Your task to perform on an android device: What's on my calendar tomorrow? Image 0: 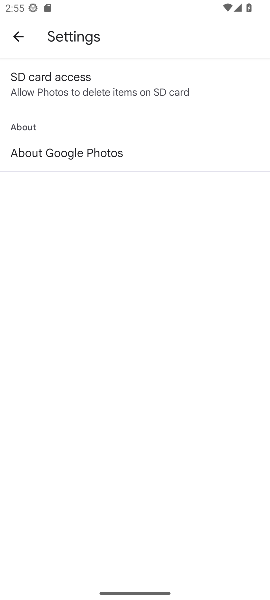
Step 0: press home button
Your task to perform on an android device: What's on my calendar tomorrow? Image 1: 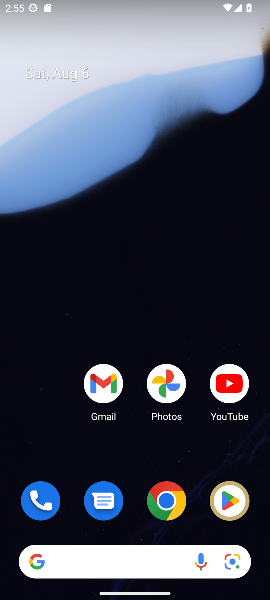
Step 1: drag from (197, 458) to (207, 69)
Your task to perform on an android device: What's on my calendar tomorrow? Image 2: 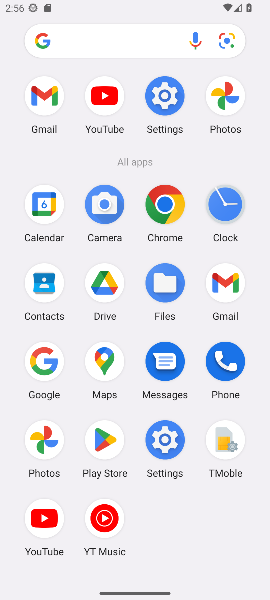
Step 2: click (40, 196)
Your task to perform on an android device: What's on my calendar tomorrow? Image 3: 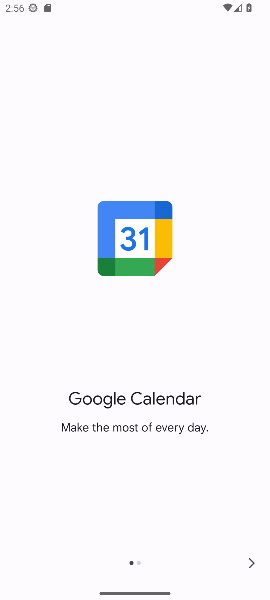
Step 3: click (251, 561)
Your task to perform on an android device: What's on my calendar tomorrow? Image 4: 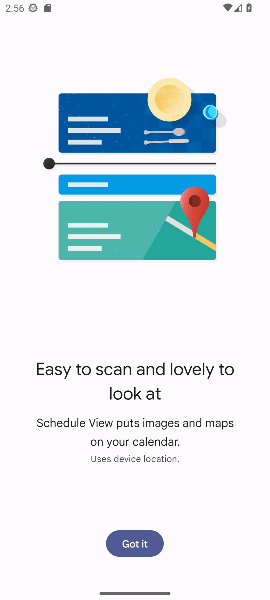
Step 4: click (251, 561)
Your task to perform on an android device: What's on my calendar tomorrow? Image 5: 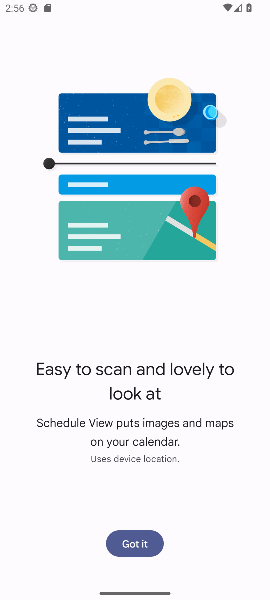
Step 5: click (145, 541)
Your task to perform on an android device: What's on my calendar tomorrow? Image 6: 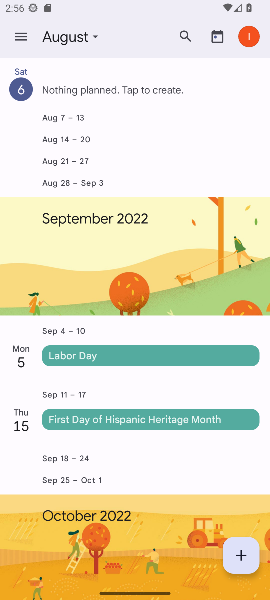
Step 6: click (18, 34)
Your task to perform on an android device: What's on my calendar tomorrow? Image 7: 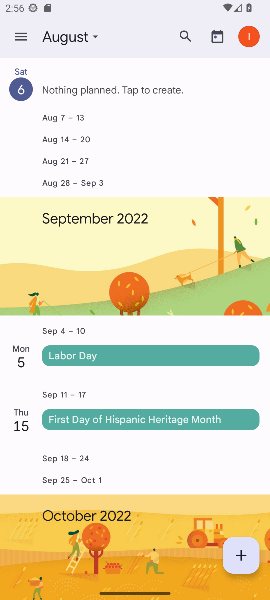
Step 7: click (45, 36)
Your task to perform on an android device: What's on my calendar tomorrow? Image 8: 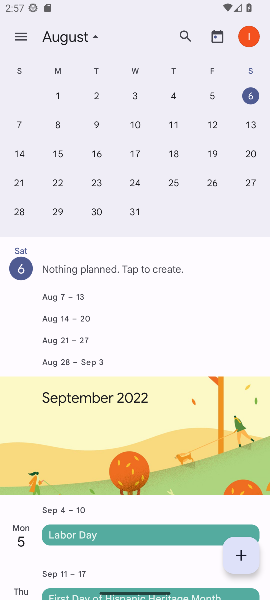
Step 8: click (13, 127)
Your task to perform on an android device: What's on my calendar tomorrow? Image 9: 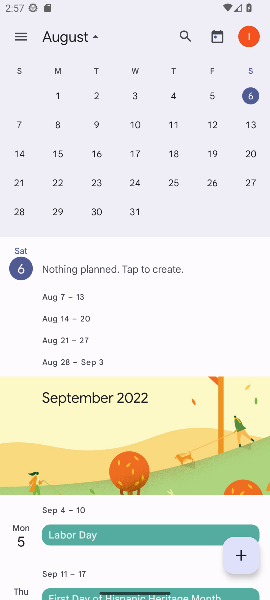
Step 9: click (18, 123)
Your task to perform on an android device: What's on my calendar tomorrow? Image 10: 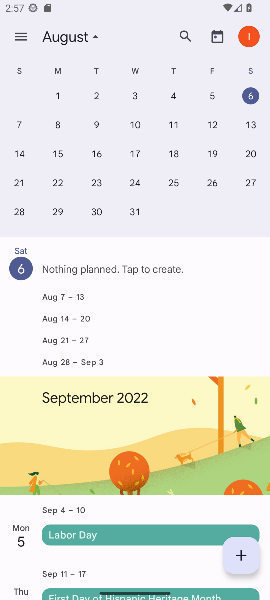
Step 10: click (17, 123)
Your task to perform on an android device: What's on my calendar tomorrow? Image 11: 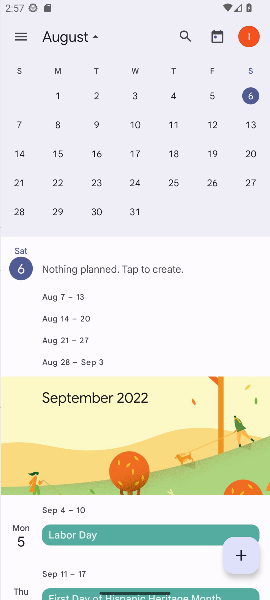
Step 11: click (24, 118)
Your task to perform on an android device: What's on my calendar tomorrow? Image 12: 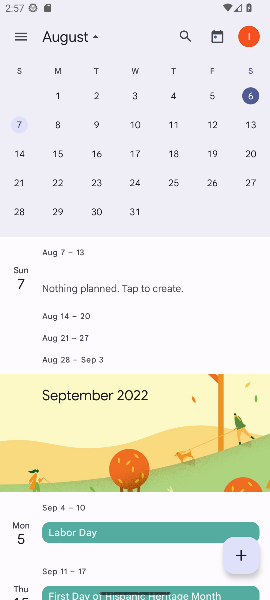
Step 12: click (19, 120)
Your task to perform on an android device: What's on my calendar tomorrow? Image 13: 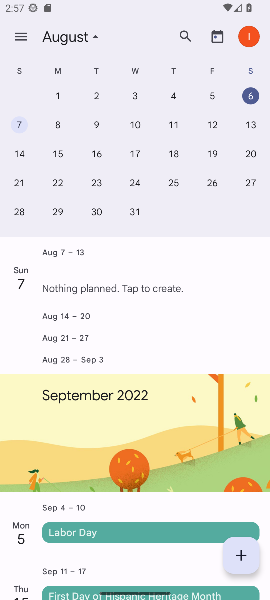
Step 13: click (19, 120)
Your task to perform on an android device: What's on my calendar tomorrow? Image 14: 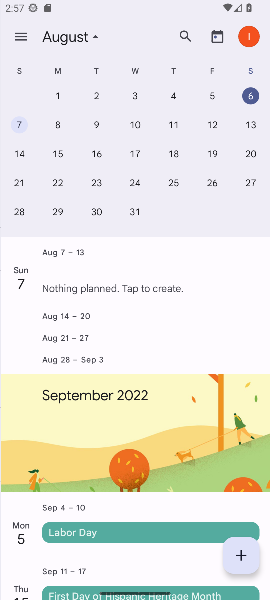
Step 14: click (19, 120)
Your task to perform on an android device: What's on my calendar tomorrow? Image 15: 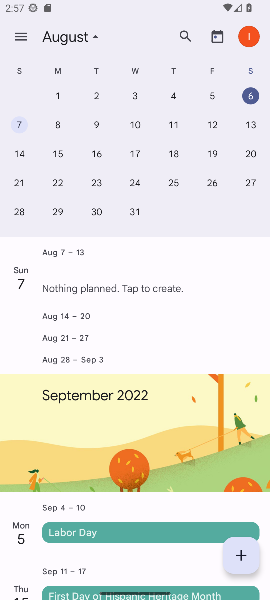
Step 15: click (19, 120)
Your task to perform on an android device: What's on my calendar tomorrow? Image 16: 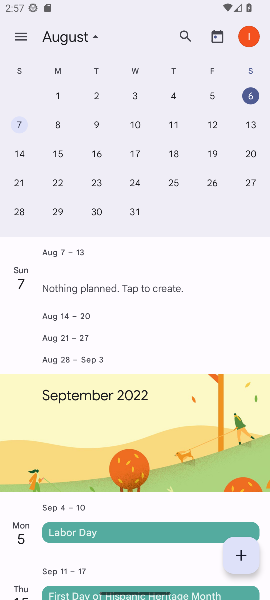
Step 16: click (19, 120)
Your task to perform on an android device: What's on my calendar tomorrow? Image 17: 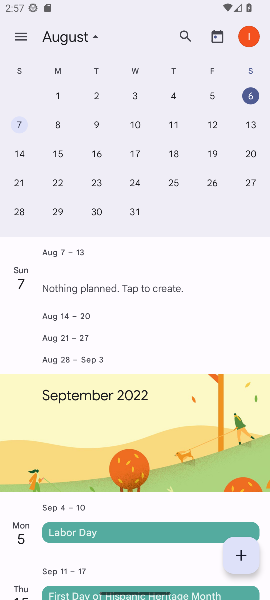
Step 17: click (19, 120)
Your task to perform on an android device: What's on my calendar tomorrow? Image 18: 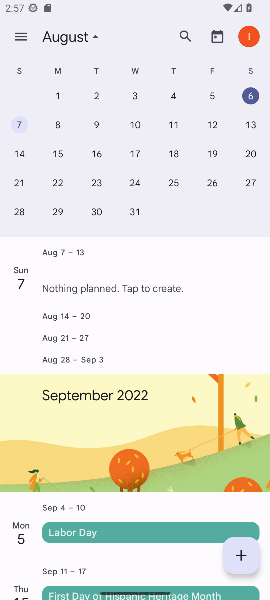
Step 18: click (19, 120)
Your task to perform on an android device: What's on my calendar tomorrow? Image 19: 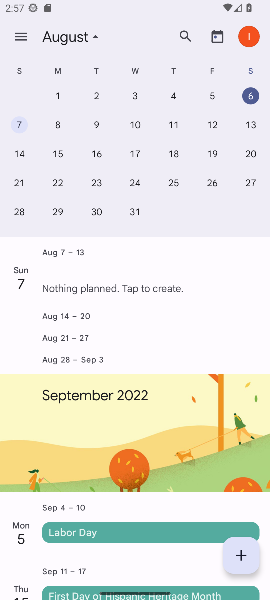
Step 19: click (19, 120)
Your task to perform on an android device: What's on my calendar tomorrow? Image 20: 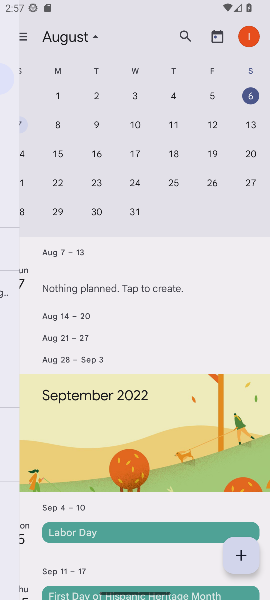
Step 20: click (19, 120)
Your task to perform on an android device: What's on my calendar tomorrow? Image 21: 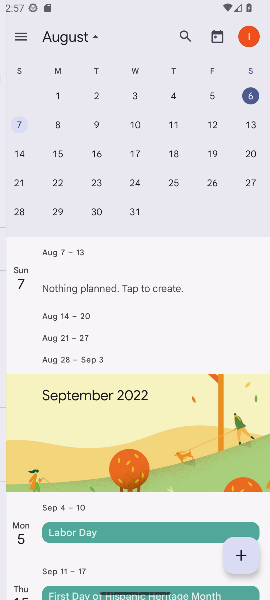
Step 21: click (19, 120)
Your task to perform on an android device: What's on my calendar tomorrow? Image 22: 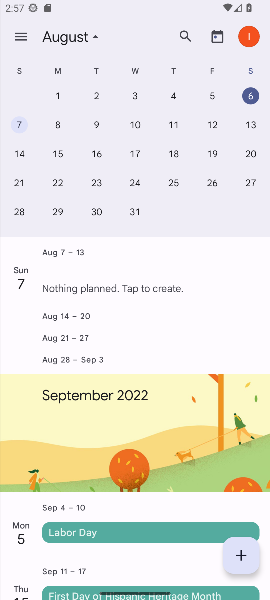
Step 22: click (19, 120)
Your task to perform on an android device: What's on my calendar tomorrow? Image 23: 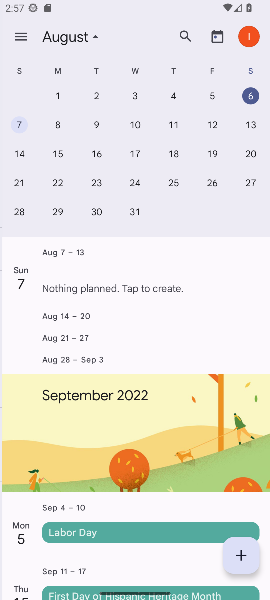
Step 23: click (23, 127)
Your task to perform on an android device: What's on my calendar tomorrow? Image 24: 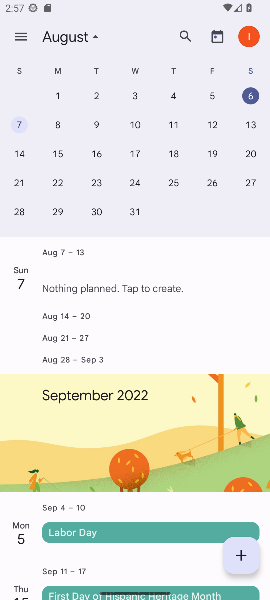
Step 24: click (20, 124)
Your task to perform on an android device: What's on my calendar tomorrow? Image 25: 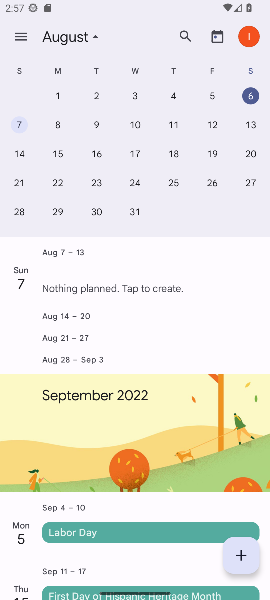
Step 25: click (20, 124)
Your task to perform on an android device: What's on my calendar tomorrow? Image 26: 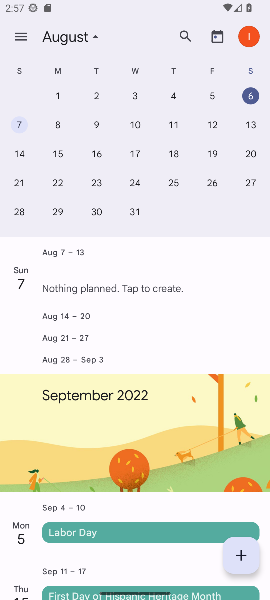
Step 26: click (166, 121)
Your task to perform on an android device: What's on my calendar tomorrow? Image 27: 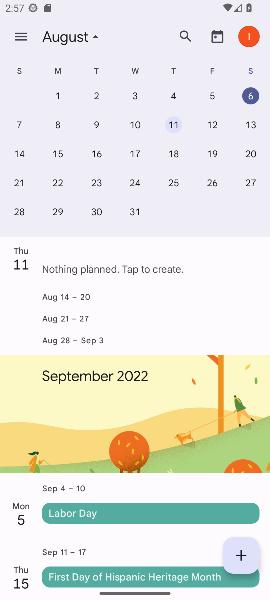
Step 27: click (100, 119)
Your task to perform on an android device: What's on my calendar tomorrow? Image 28: 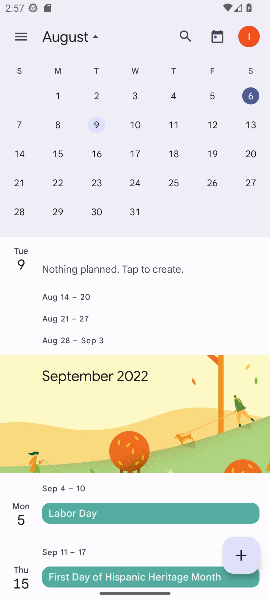
Step 28: click (85, 122)
Your task to perform on an android device: What's on my calendar tomorrow? Image 29: 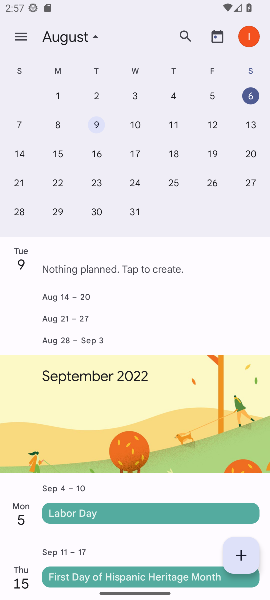
Step 29: click (21, 121)
Your task to perform on an android device: What's on my calendar tomorrow? Image 30: 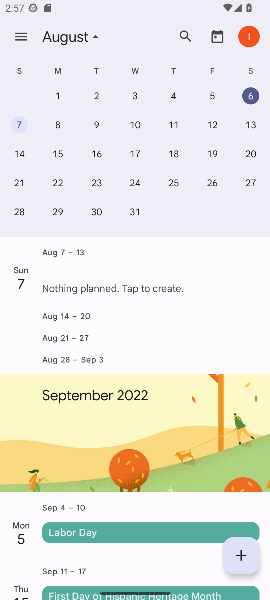
Step 30: task complete